Your task to perform on an android device: Open Google Chrome Image 0: 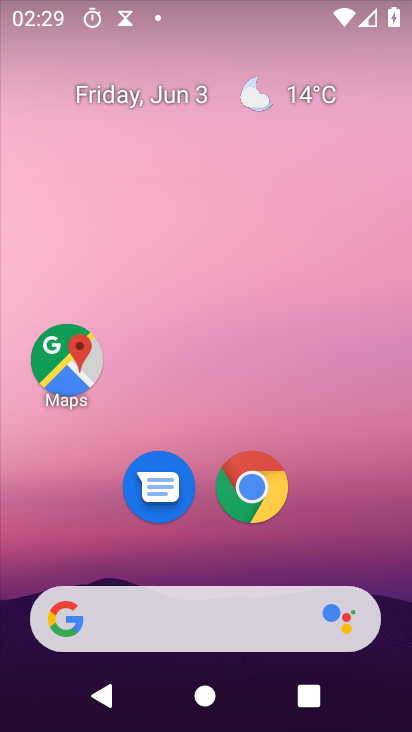
Step 0: click (264, 469)
Your task to perform on an android device: Open Google Chrome Image 1: 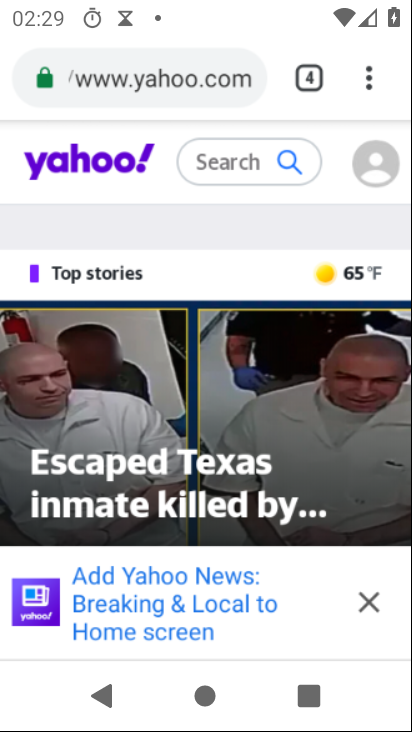
Step 1: task complete